Your task to perform on an android device: Open sound settings Image 0: 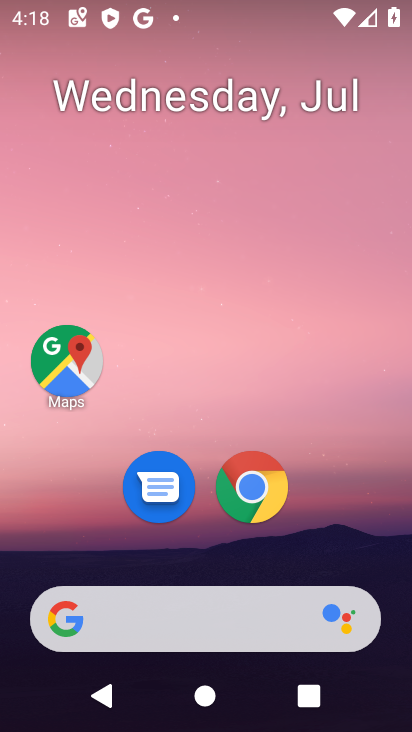
Step 0: drag from (177, 548) to (303, 10)
Your task to perform on an android device: Open sound settings Image 1: 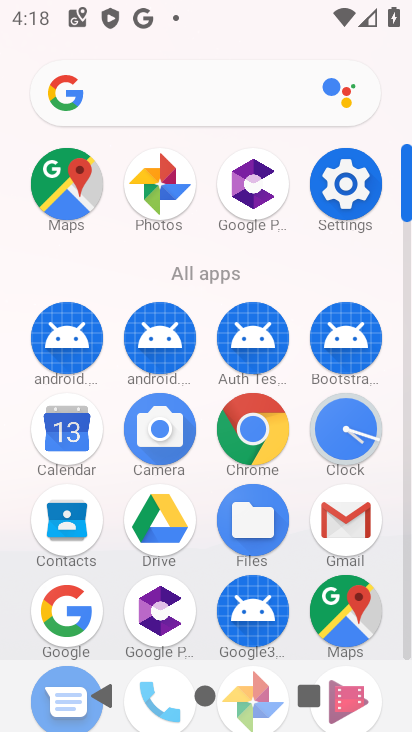
Step 1: click (345, 189)
Your task to perform on an android device: Open sound settings Image 2: 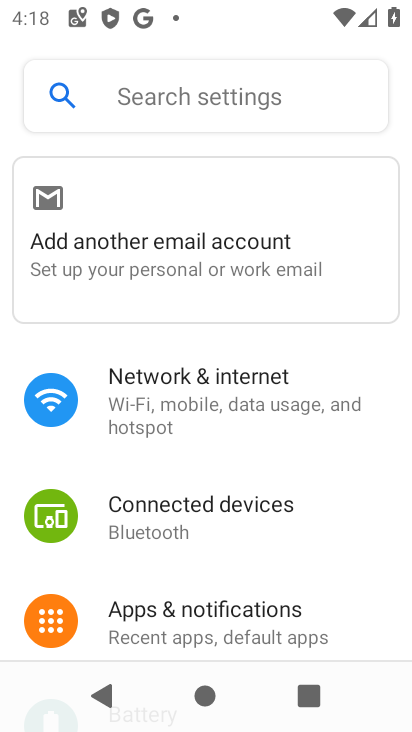
Step 2: drag from (209, 580) to (244, 96)
Your task to perform on an android device: Open sound settings Image 3: 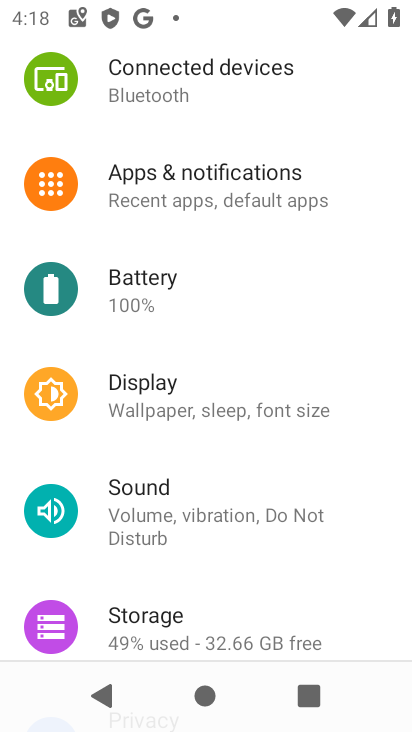
Step 3: click (128, 535)
Your task to perform on an android device: Open sound settings Image 4: 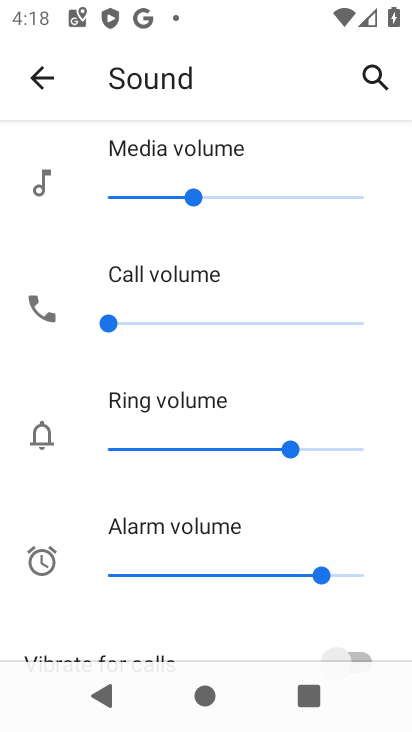
Step 4: task complete